Your task to perform on an android device: change the clock display to digital Image 0: 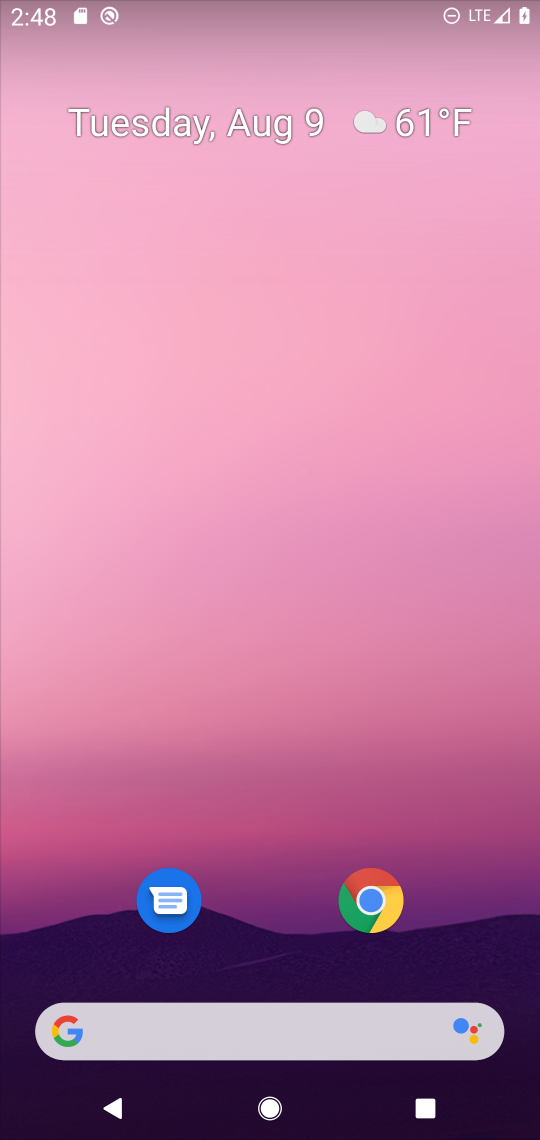
Step 0: press home button
Your task to perform on an android device: change the clock display to digital Image 1: 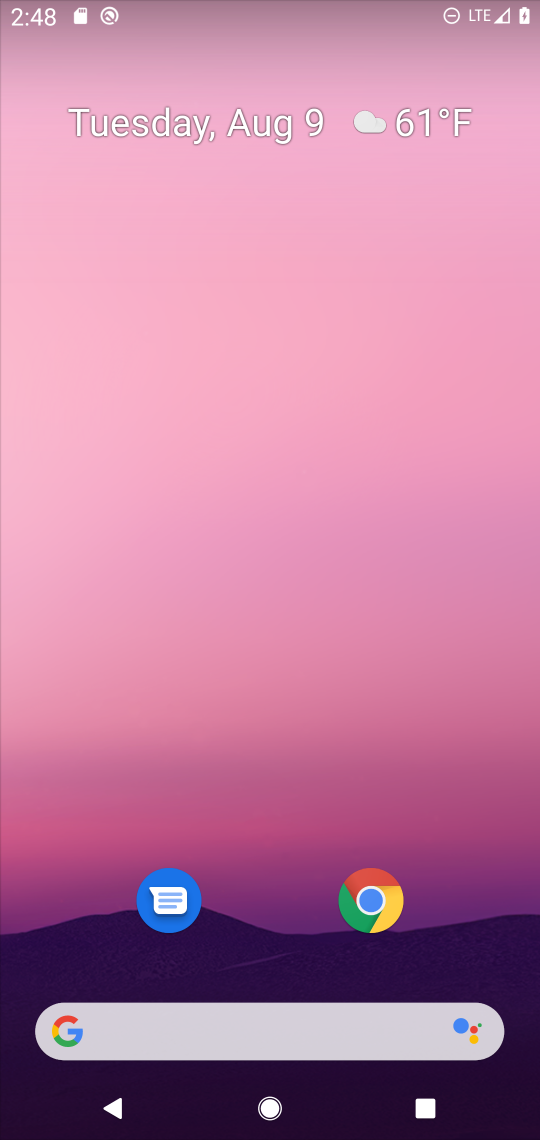
Step 1: drag from (449, 914) to (503, 337)
Your task to perform on an android device: change the clock display to digital Image 2: 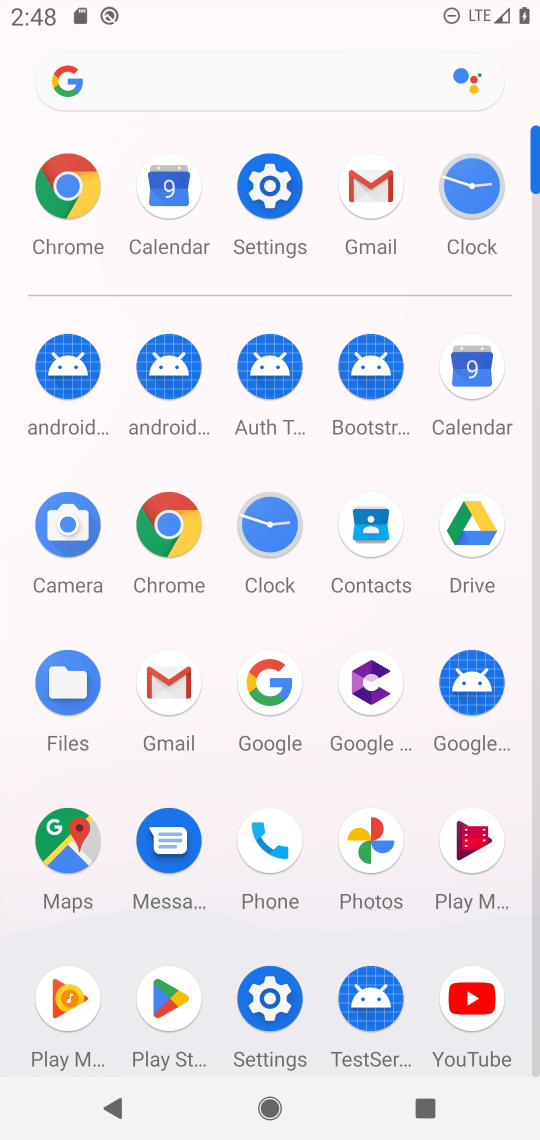
Step 2: click (270, 520)
Your task to perform on an android device: change the clock display to digital Image 3: 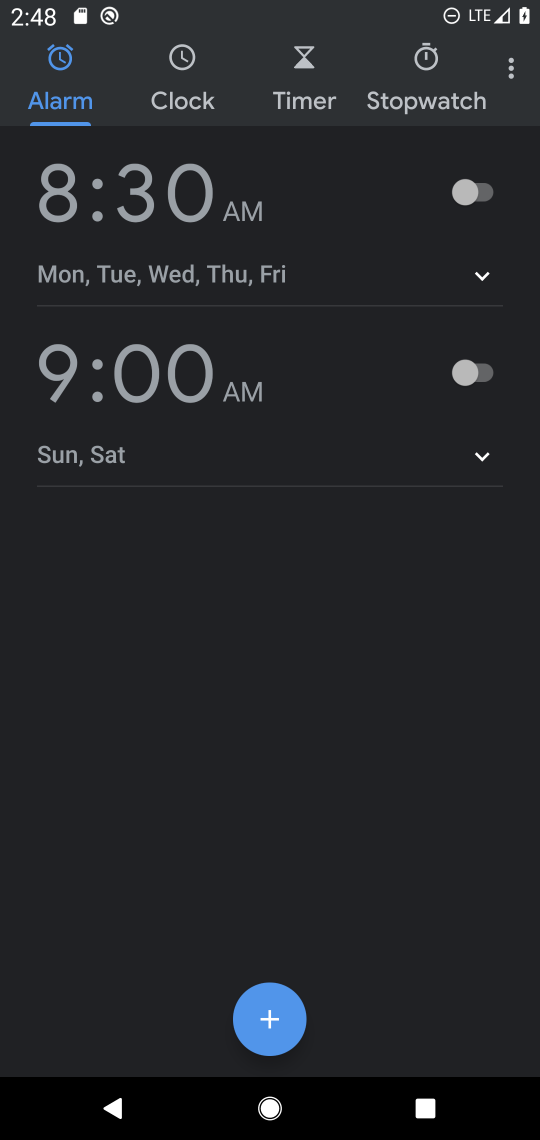
Step 3: click (512, 78)
Your task to perform on an android device: change the clock display to digital Image 4: 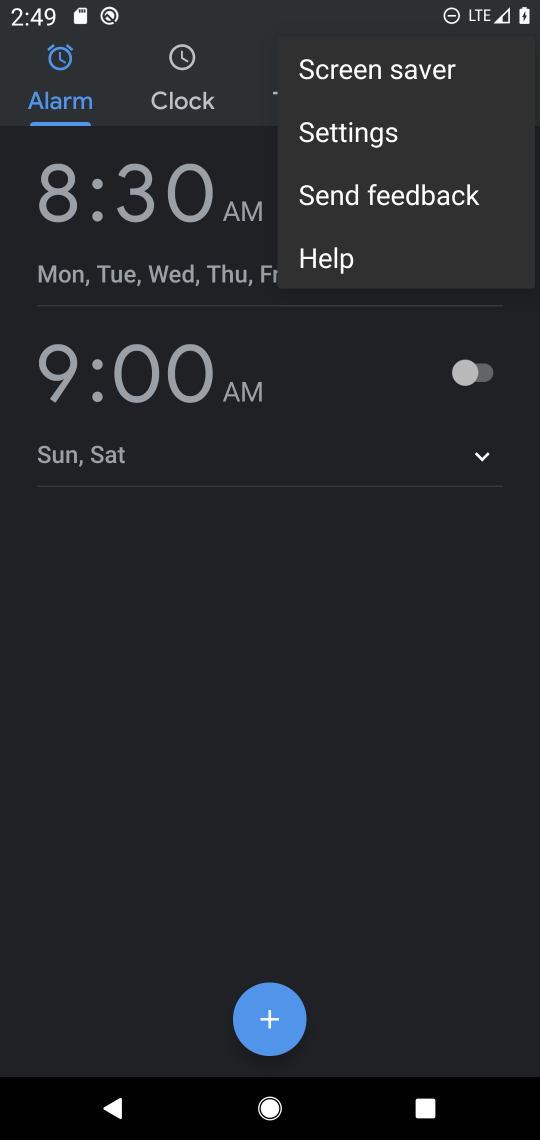
Step 4: click (463, 120)
Your task to perform on an android device: change the clock display to digital Image 5: 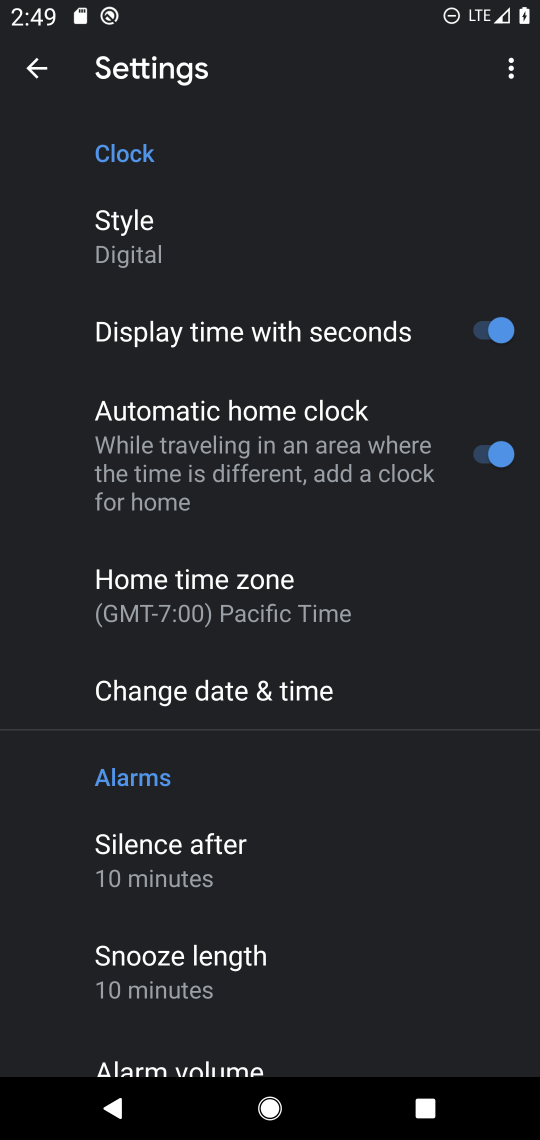
Step 5: task complete